Your task to perform on an android device: Open the stopwatch Image 0: 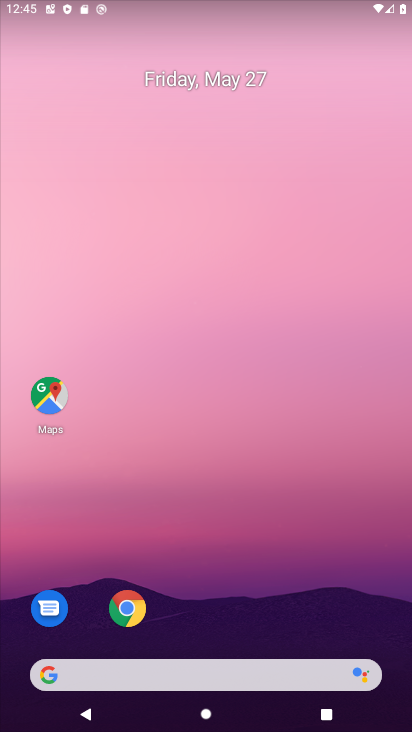
Step 0: drag from (231, 566) to (306, 55)
Your task to perform on an android device: Open the stopwatch Image 1: 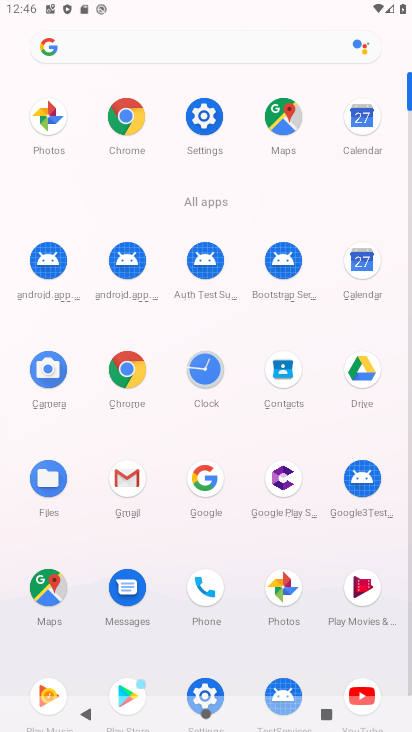
Step 1: click (202, 370)
Your task to perform on an android device: Open the stopwatch Image 2: 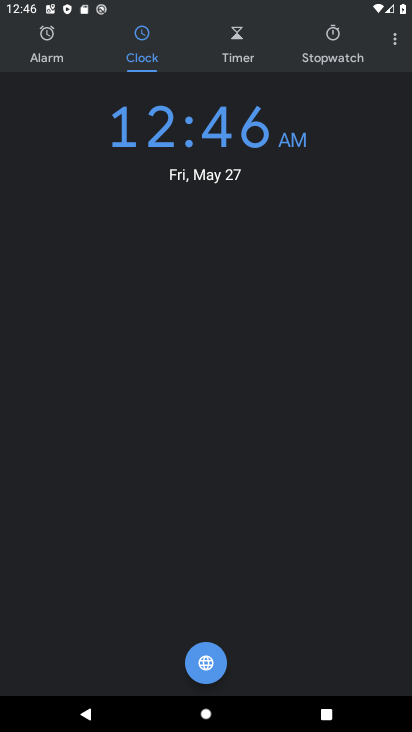
Step 2: click (323, 48)
Your task to perform on an android device: Open the stopwatch Image 3: 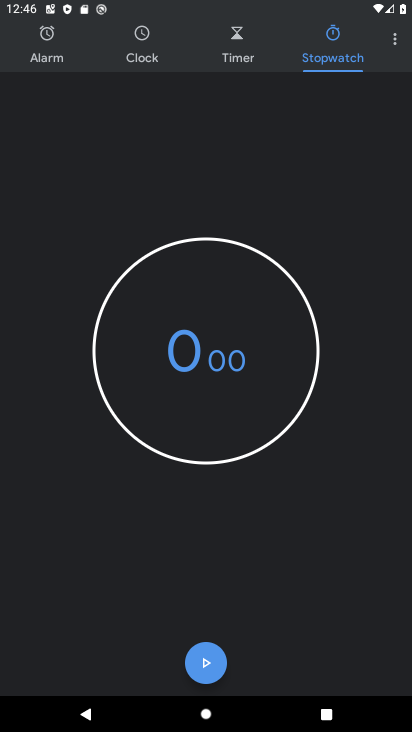
Step 3: task complete